Your task to perform on an android device: Show me productivity apps on the Play Store Image 0: 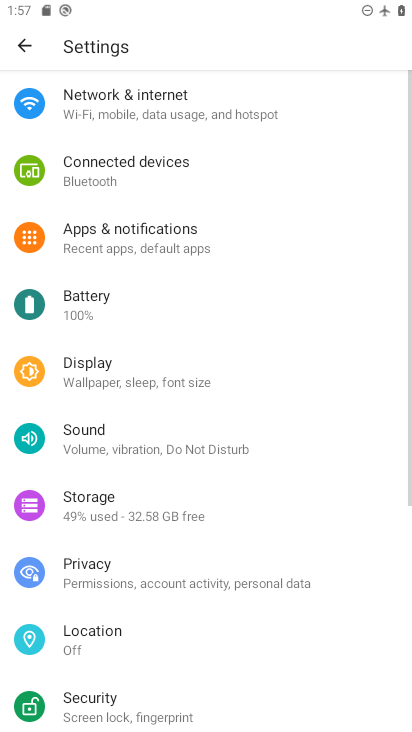
Step 0: press home button
Your task to perform on an android device: Show me productivity apps on the Play Store Image 1: 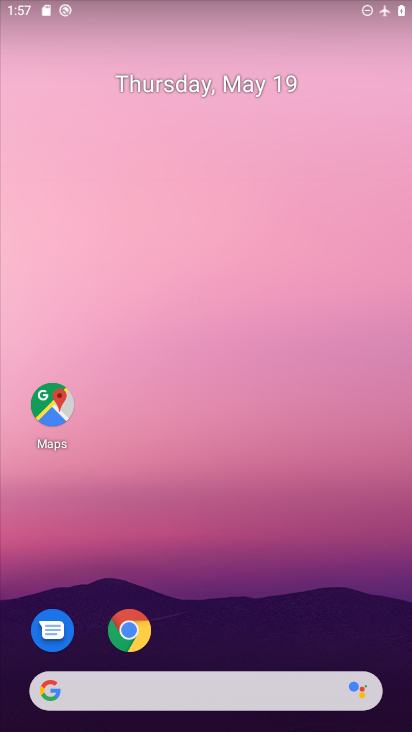
Step 1: drag from (210, 655) to (174, 10)
Your task to perform on an android device: Show me productivity apps on the Play Store Image 2: 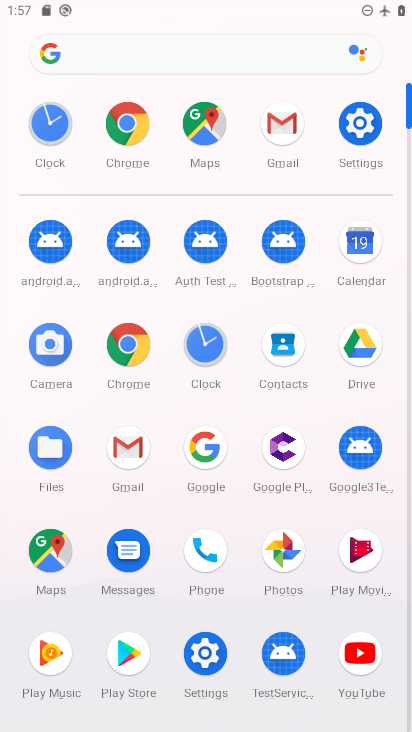
Step 2: click (129, 663)
Your task to perform on an android device: Show me productivity apps on the Play Store Image 3: 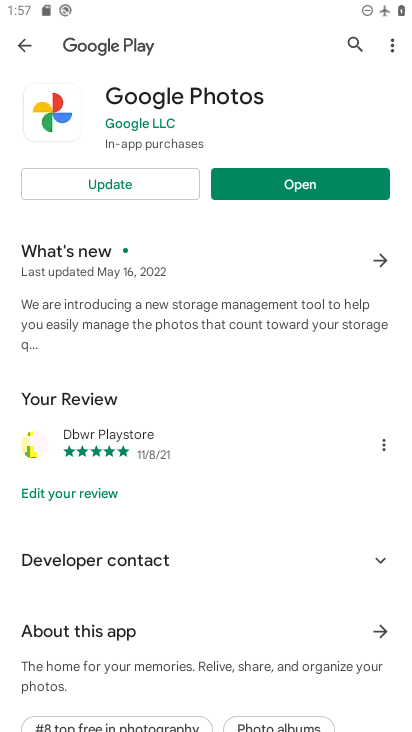
Step 3: click (22, 38)
Your task to perform on an android device: Show me productivity apps on the Play Store Image 4: 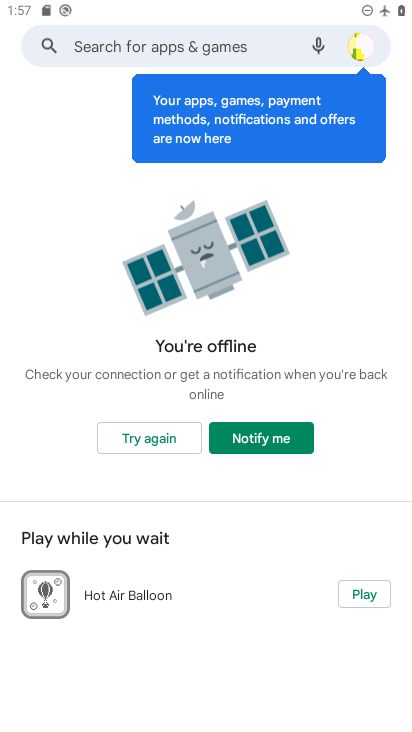
Step 4: task complete